Your task to perform on an android device: Open Chrome and go to settings Image 0: 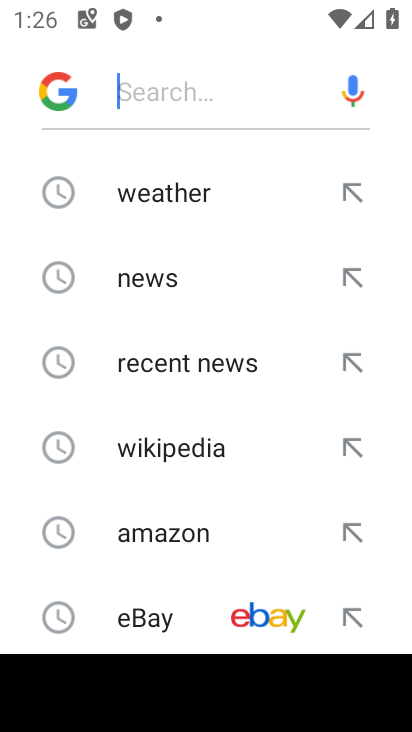
Step 0: press home button
Your task to perform on an android device: Open Chrome and go to settings Image 1: 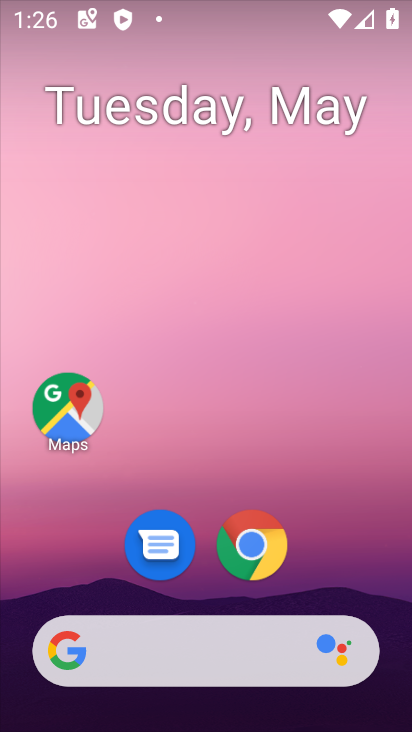
Step 1: click (249, 548)
Your task to perform on an android device: Open Chrome and go to settings Image 2: 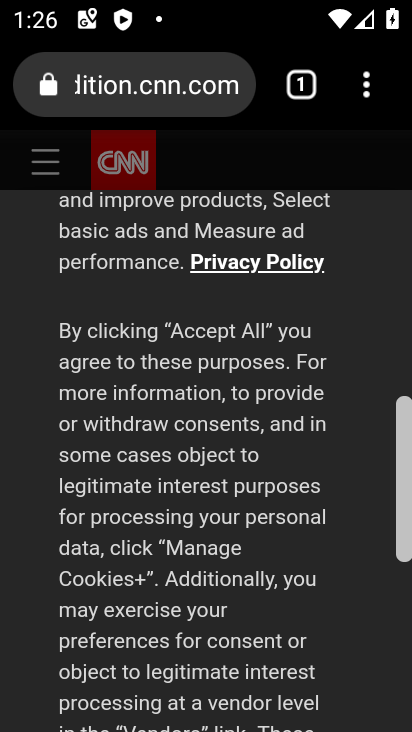
Step 2: click (366, 98)
Your task to perform on an android device: Open Chrome and go to settings Image 3: 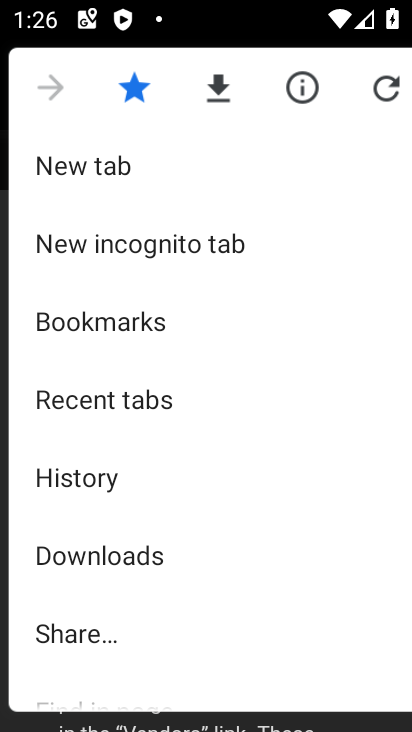
Step 3: drag from (182, 554) to (263, 202)
Your task to perform on an android device: Open Chrome and go to settings Image 4: 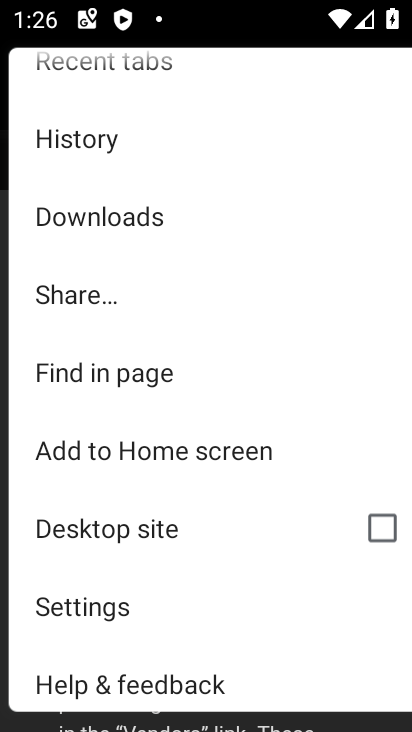
Step 4: click (97, 598)
Your task to perform on an android device: Open Chrome and go to settings Image 5: 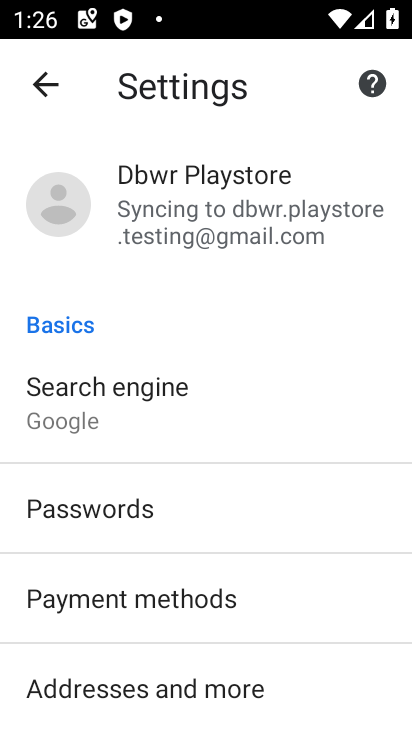
Step 5: task complete